Your task to perform on an android device: Open notification settings Image 0: 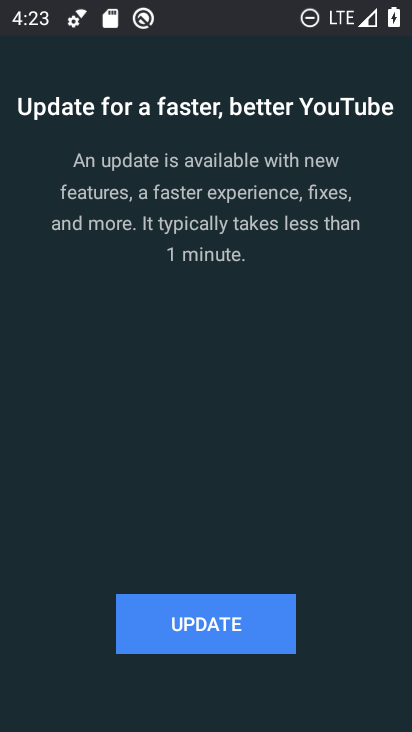
Step 0: press home button
Your task to perform on an android device: Open notification settings Image 1: 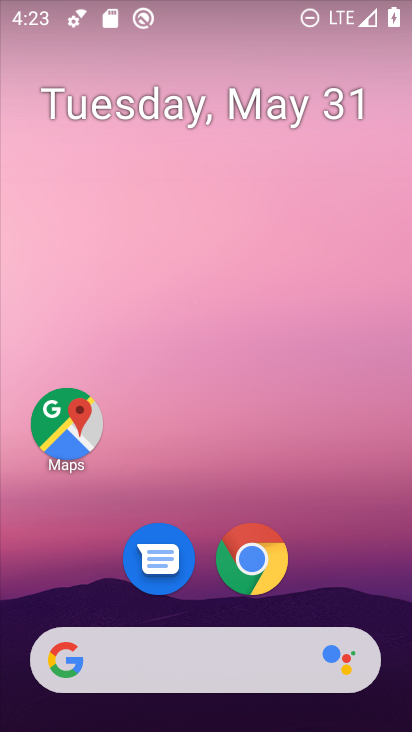
Step 1: drag from (247, 721) to (252, 158)
Your task to perform on an android device: Open notification settings Image 2: 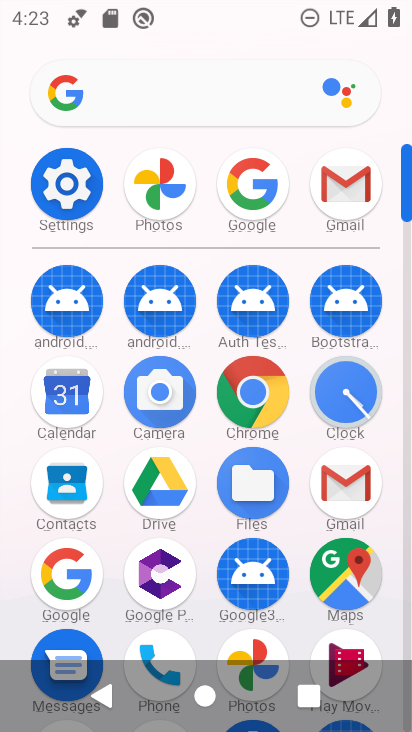
Step 2: click (68, 185)
Your task to perform on an android device: Open notification settings Image 3: 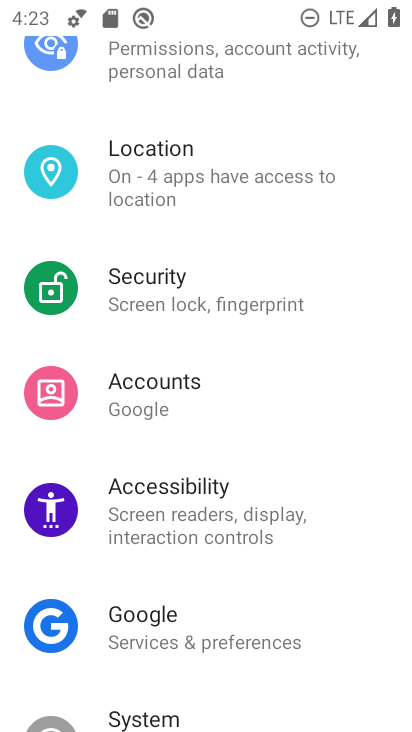
Step 3: drag from (261, 110) to (249, 501)
Your task to perform on an android device: Open notification settings Image 4: 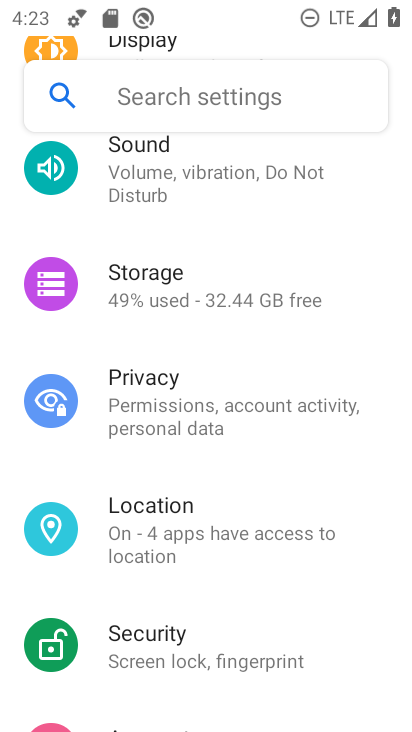
Step 4: drag from (302, 153) to (312, 591)
Your task to perform on an android device: Open notification settings Image 5: 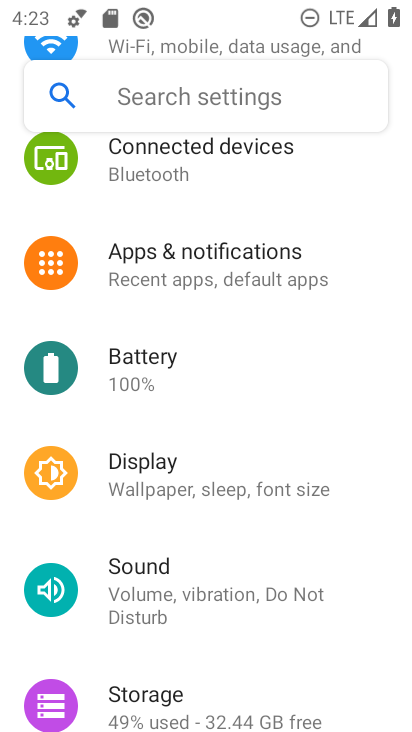
Step 5: click (211, 265)
Your task to perform on an android device: Open notification settings Image 6: 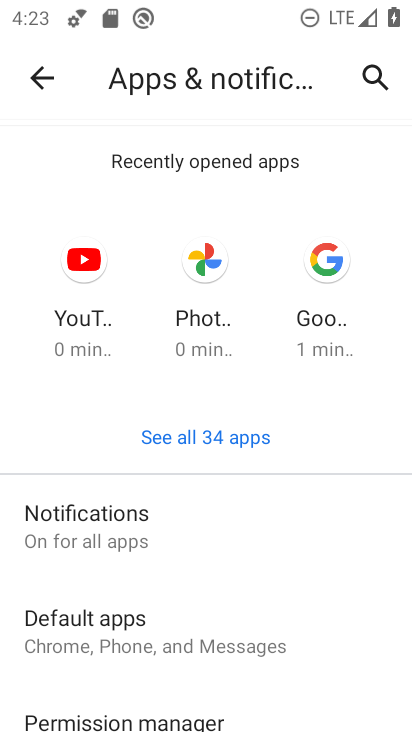
Step 6: click (92, 526)
Your task to perform on an android device: Open notification settings Image 7: 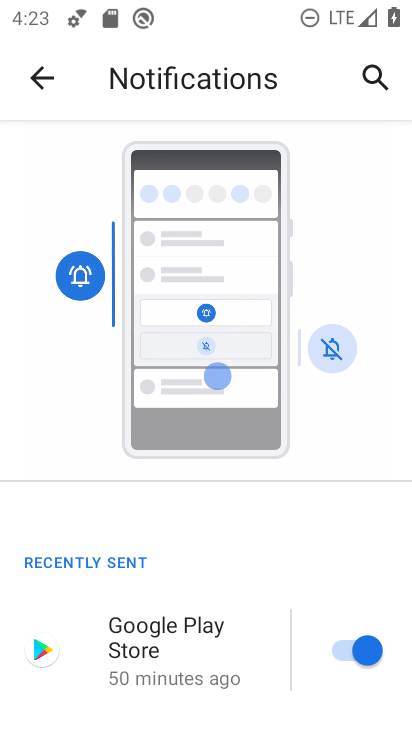
Step 7: task complete